Your task to perform on an android device: Open settings Image 0: 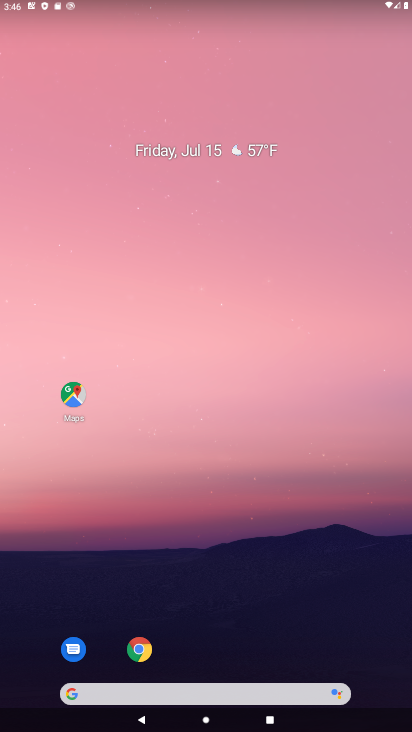
Step 0: drag from (231, 724) to (259, 138)
Your task to perform on an android device: Open settings Image 1: 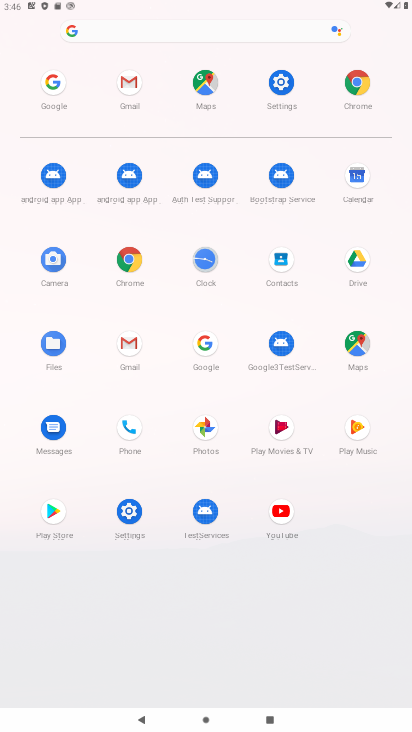
Step 1: click (279, 82)
Your task to perform on an android device: Open settings Image 2: 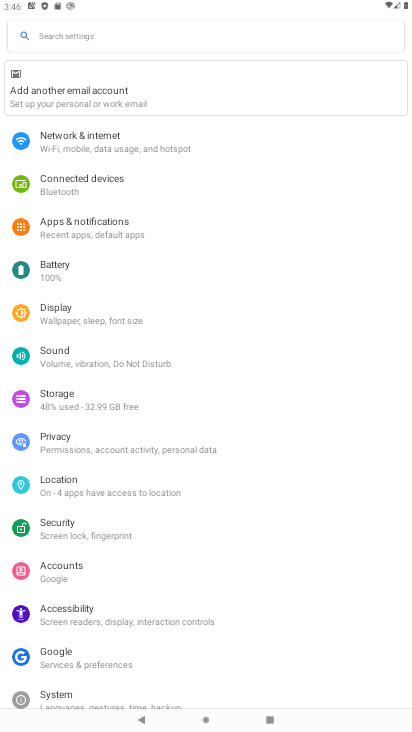
Step 2: task complete